Your task to perform on an android device: Open maps Image 0: 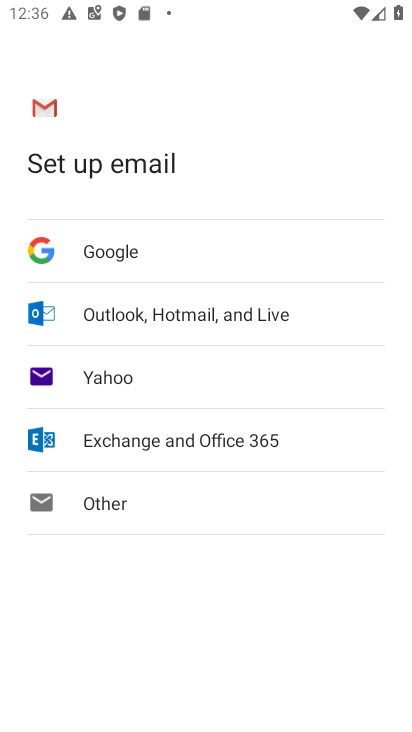
Step 0: press home button
Your task to perform on an android device: Open maps Image 1: 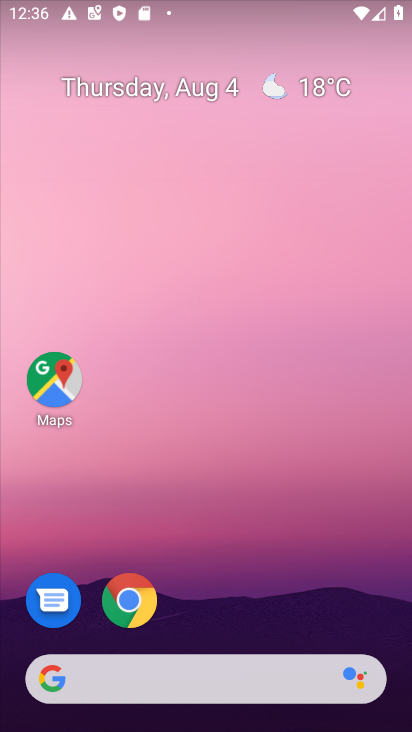
Step 1: click (48, 371)
Your task to perform on an android device: Open maps Image 2: 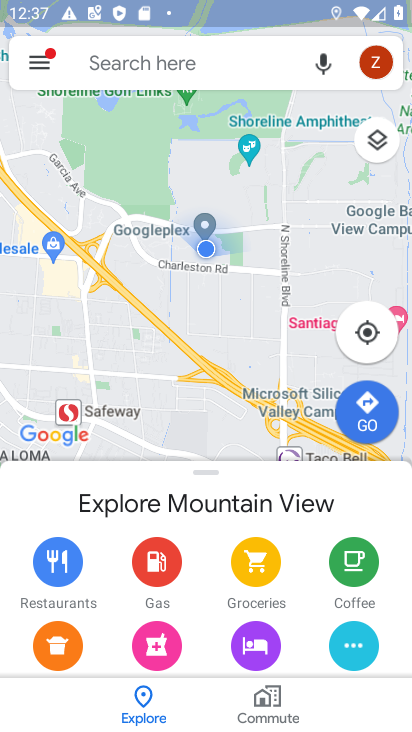
Step 2: task complete